Your task to perform on an android device: What's the latest news in space? Image 0: 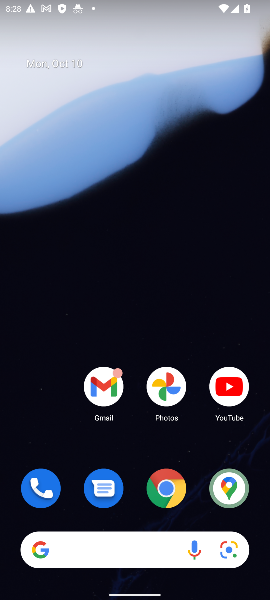
Step 0: drag from (128, 461) to (136, 5)
Your task to perform on an android device: What's the latest news in space? Image 1: 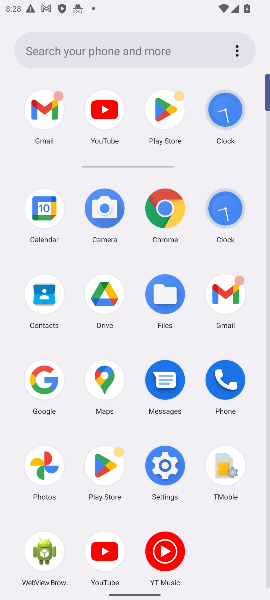
Step 1: click (164, 210)
Your task to perform on an android device: What's the latest news in space? Image 2: 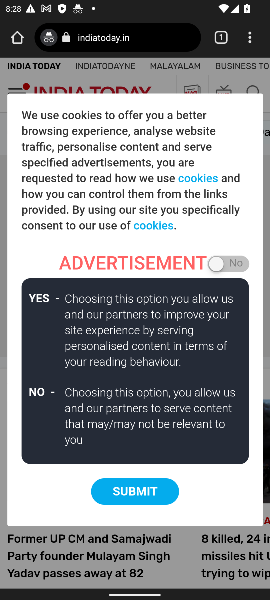
Step 2: click (89, 48)
Your task to perform on an android device: What's the latest news in space? Image 3: 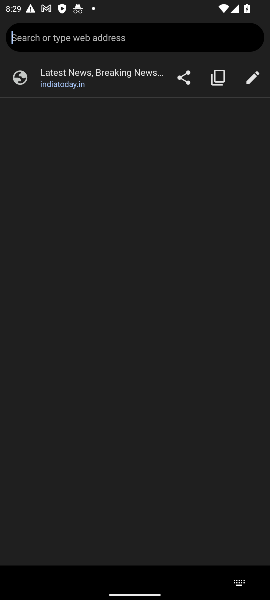
Step 3: type "What's the latest news in space?"
Your task to perform on an android device: What's the latest news in space? Image 4: 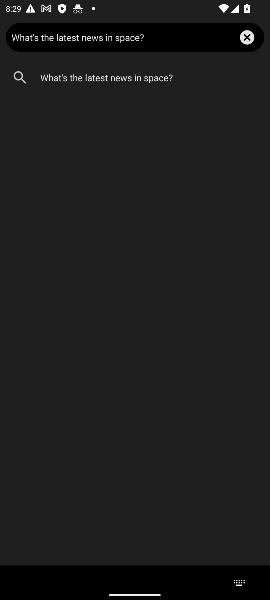
Step 4: press enter
Your task to perform on an android device: What's the latest news in space? Image 5: 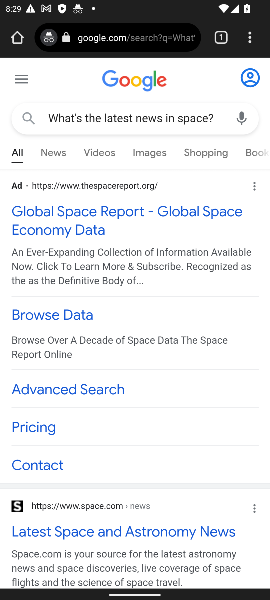
Step 5: drag from (152, 528) to (145, 268)
Your task to perform on an android device: What's the latest news in space? Image 6: 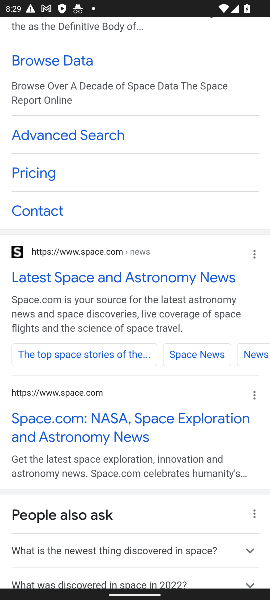
Step 6: click (171, 279)
Your task to perform on an android device: What's the latest news in space? Image 7: 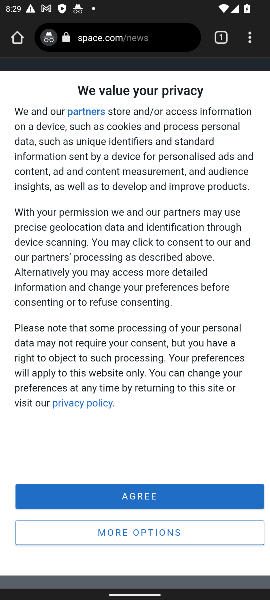
Step 7: click (76, 492)
Your task to perform on an android device: What's the latest news in space? Image 8: 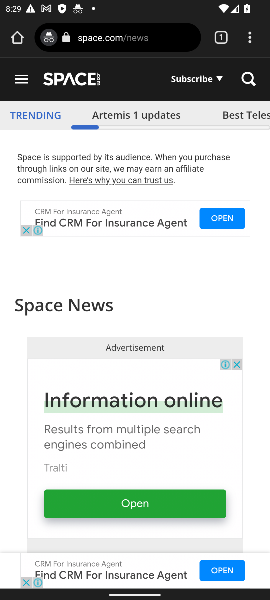
Step 8: task complete